Your task to perform on an android device: Open Yahoo.com Image 0: 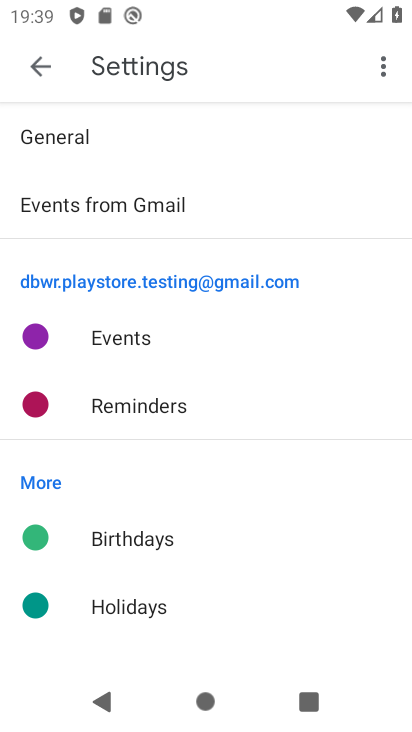
Step 0: press home button
Your task to perform on an android device: Open Yahoo.com Image 1: 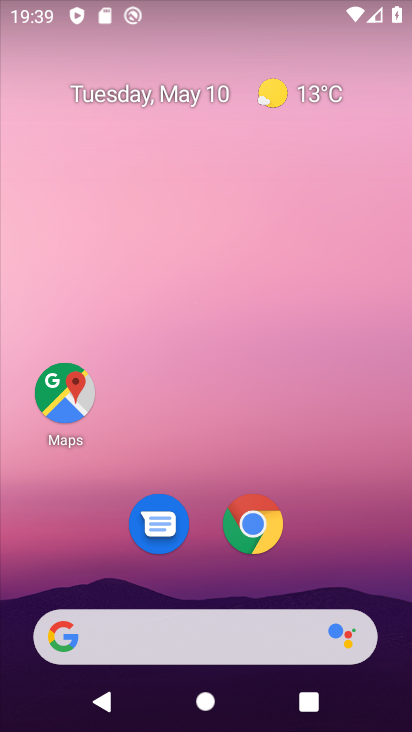
Step 1: click (274, 635)
Your task to perform on an android device: Open Yahoo.com Image 2: 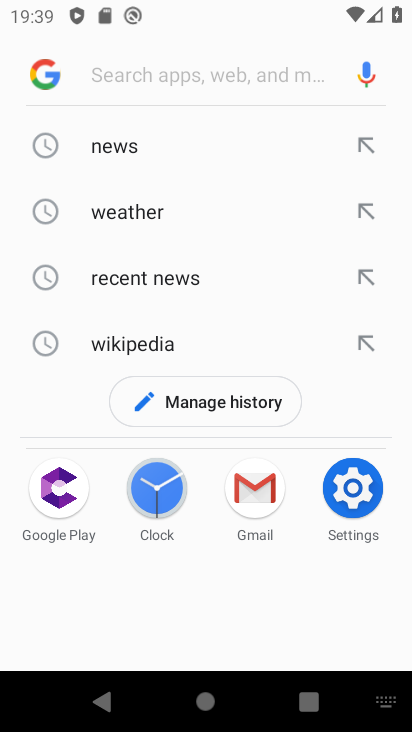
Step 2: type "yahoo.com"
Your task to perform on an android device: Open Yahoo.com Image 3: 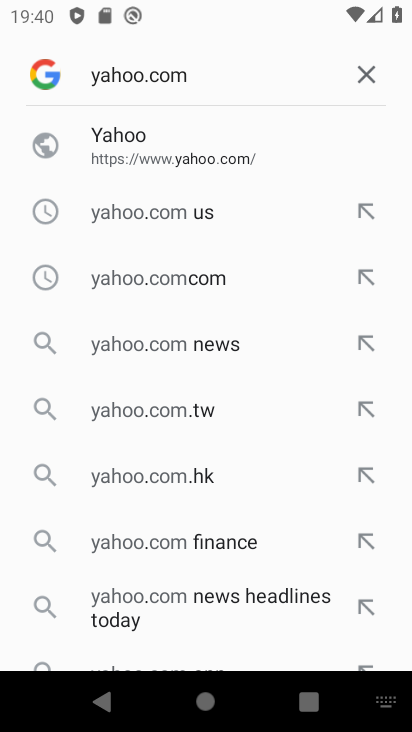
Step 3: click (92, 143)
Your task to perform on an android device: Open Yahoo.com Image 4: 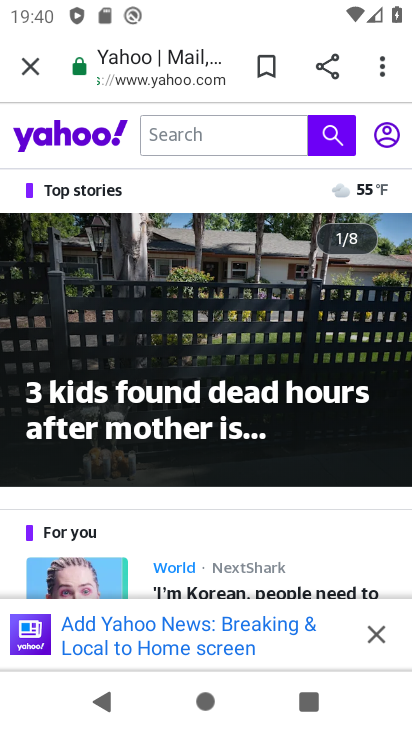
Step 4: task complete